Your task to perform on an android device: turn on airplane mode Image 0: 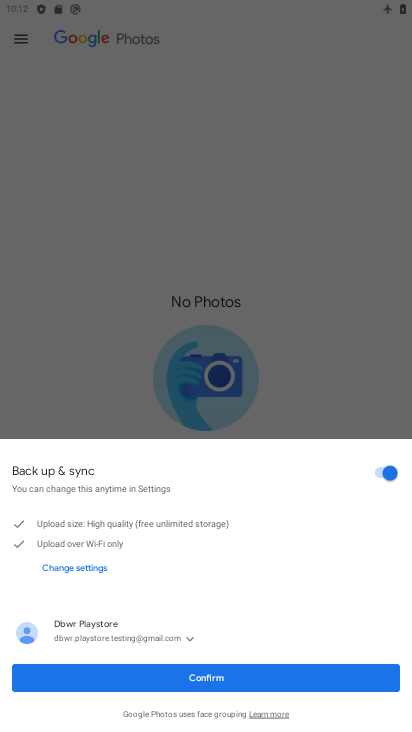
Step 0: click (205, 676)
Your task to perform on an android device: turn on airplane mode Image 1: 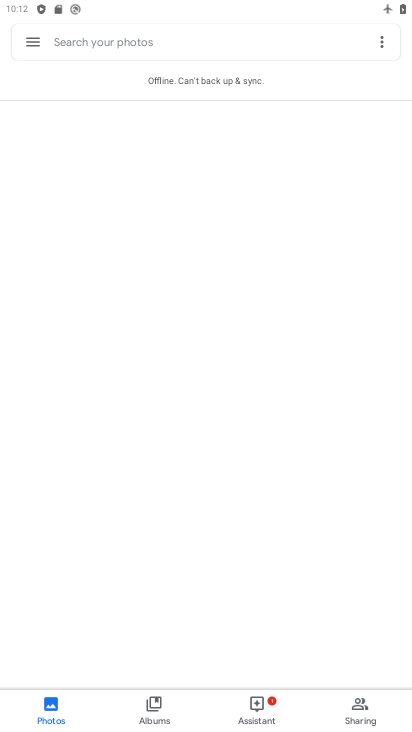
Step 1: press back button
Your task to perform on an android device: turn on airplane mode Image 2: 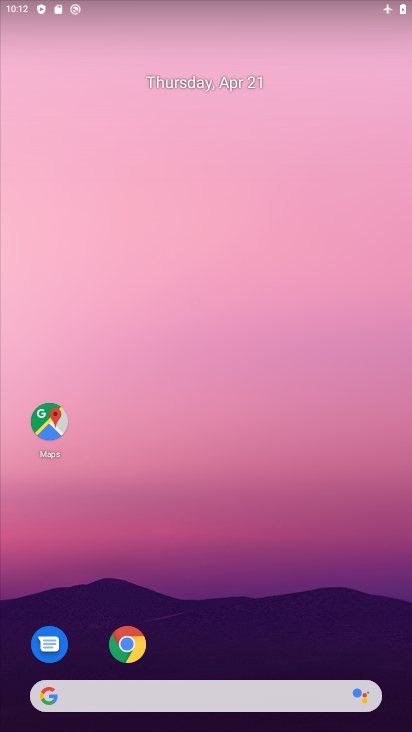
Step 2: drag from (257, 595) to (98, 156)
Your task to perform on an android device: turn on airplane mode Image 3: 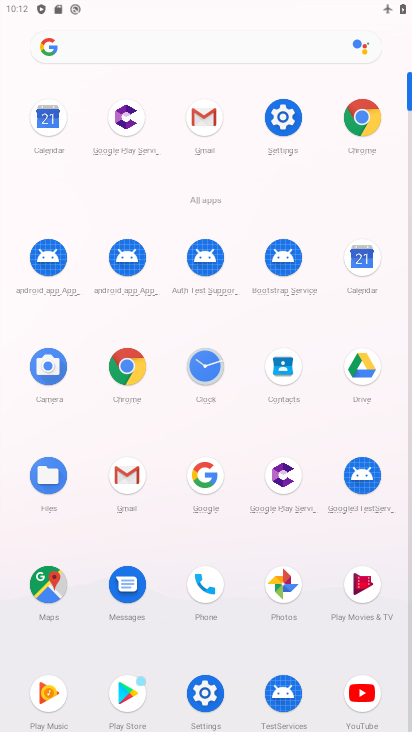
Step 3: click (284, 132)
Your task to perform on an android device: turn on airplane mode Image 4: 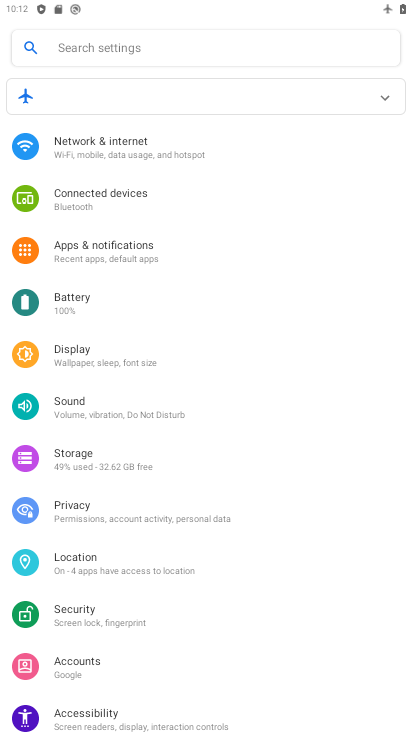
Step 4: click (385, 102)
Your task to perform on an android device: turn on airplane mode Image 5: 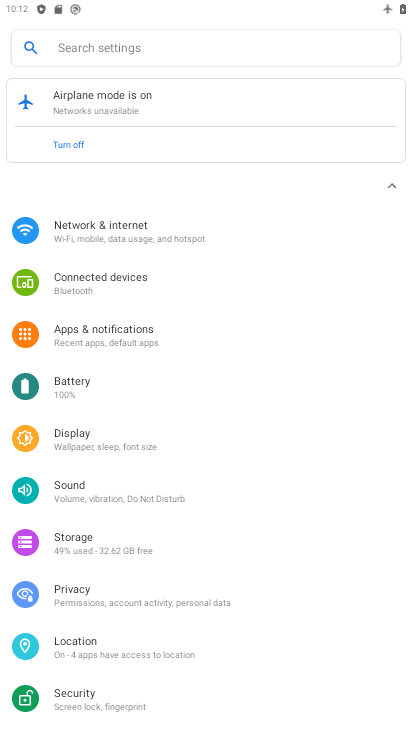
Step 5: click (60, 139)
Your task to perform on an android device: turn on airplane mode Image 6: 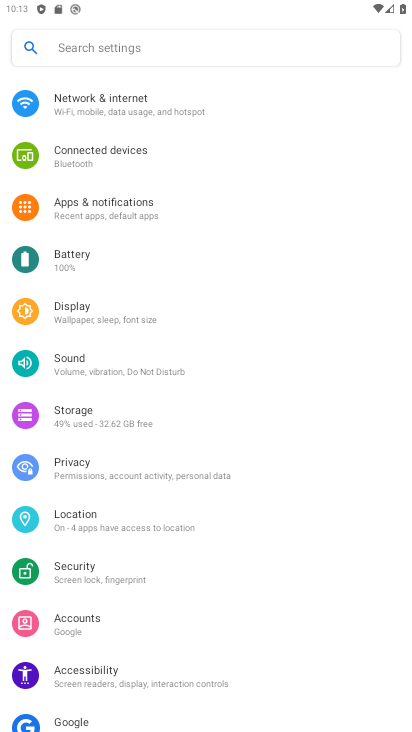
Step 6: click (101, 110)
Your task to perform on an android device: turn on airplane mode Image 7: 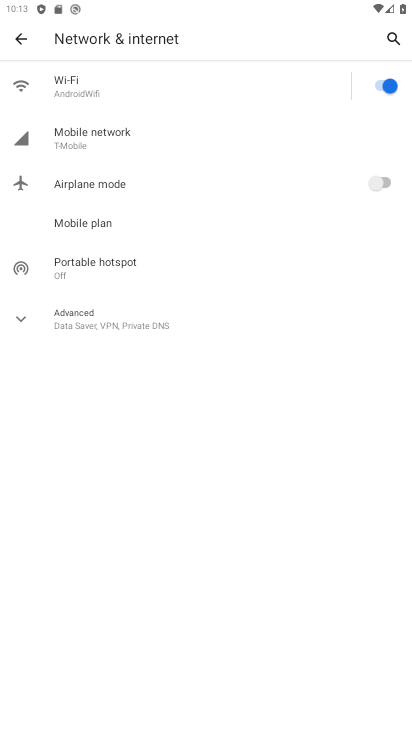
Step 7: click (391, 182)
Your task to perform on an android device: turn on airplane mode Image 8: 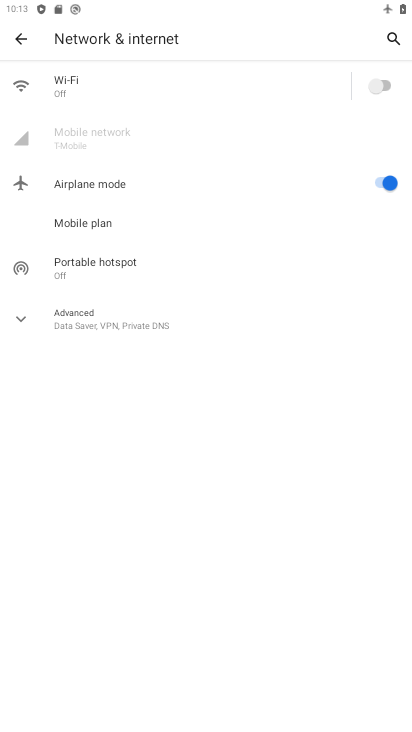
Step 8: task complete